Your task to perform on an android device: add a contact Image 0: 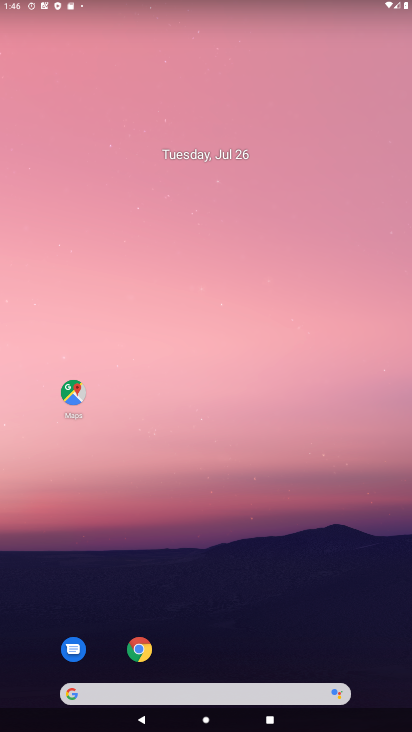
Step 0: press home button
Your task to perform on an android device: add a contact Image 1: 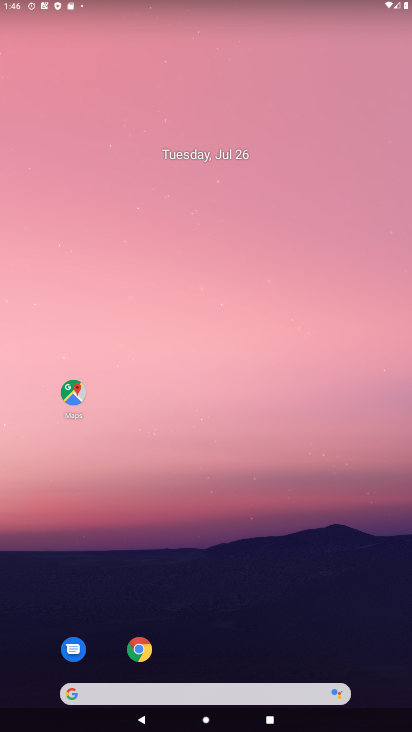
Step 1: drag from (368, 633) to (128, 105)
Your task to perform on an android device: add a contact Image 2: 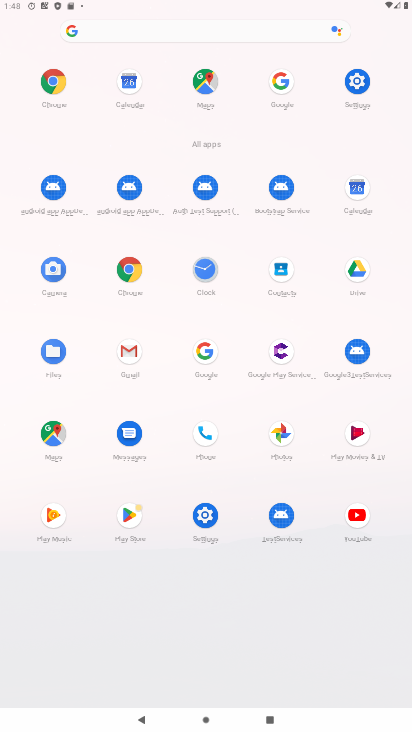
Step 2: click (281, 283)
Your task to perform on an android device: add a contact Image 3: 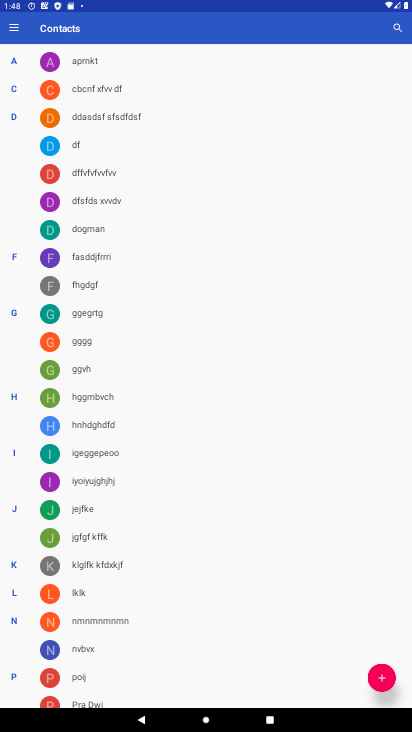
Step 3: click (373, 679)
Your task to perform on an android device: add a contact Image 4: 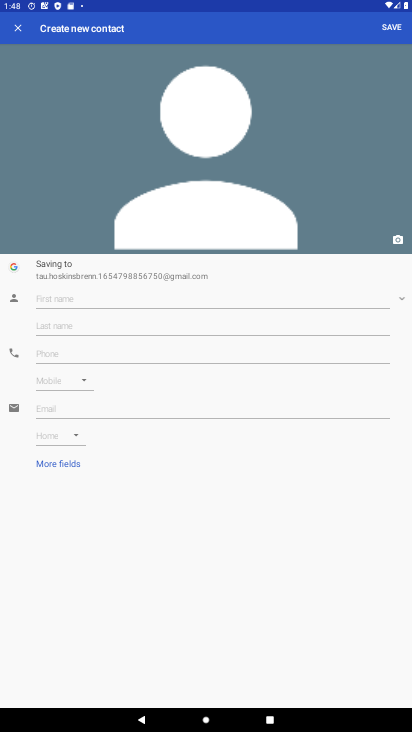
Step 4: click (54, 298)
Your task to perform on an android device: add a contact Image 5: 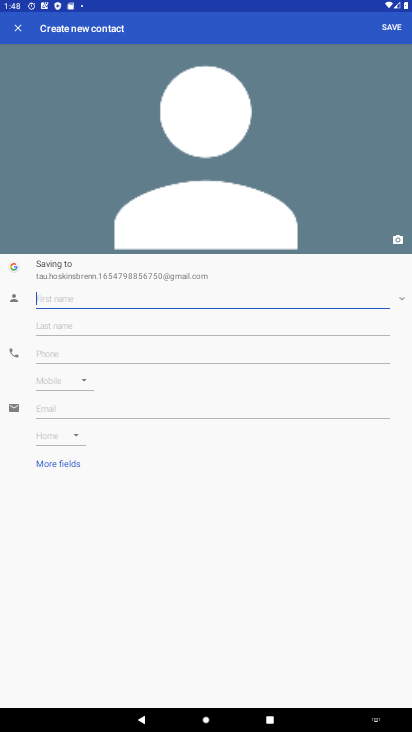
Step 5: type "tisha"
Your task to perform on an android device: add a contact Image 6: 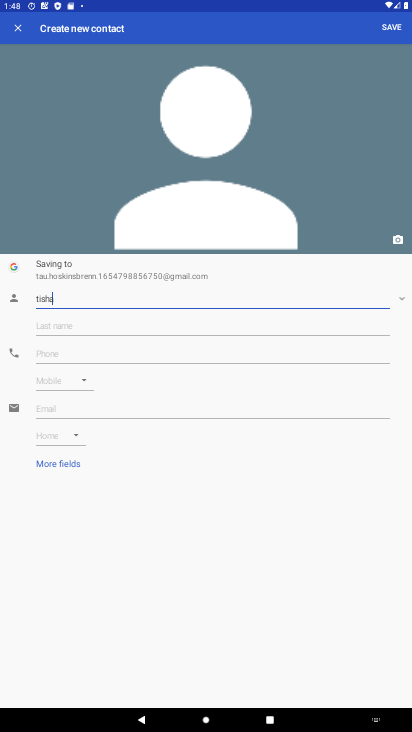
Step 6: click (397, 20)
Your task to perform on an android device: add a contact Image 7: 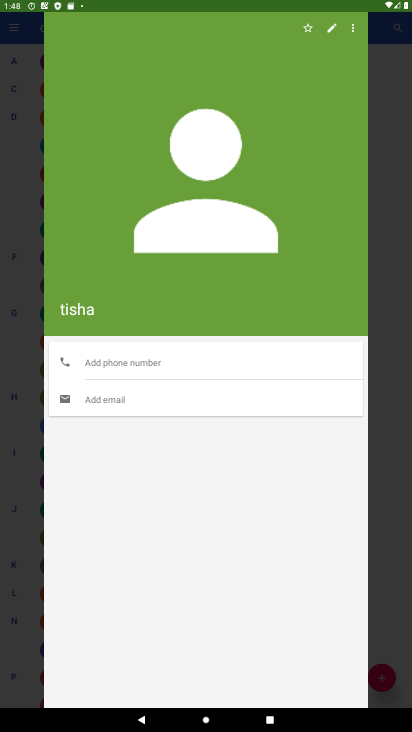
Step 7: task complete